Your task to perform on an android device: What is the capital of Germany? Image 0: 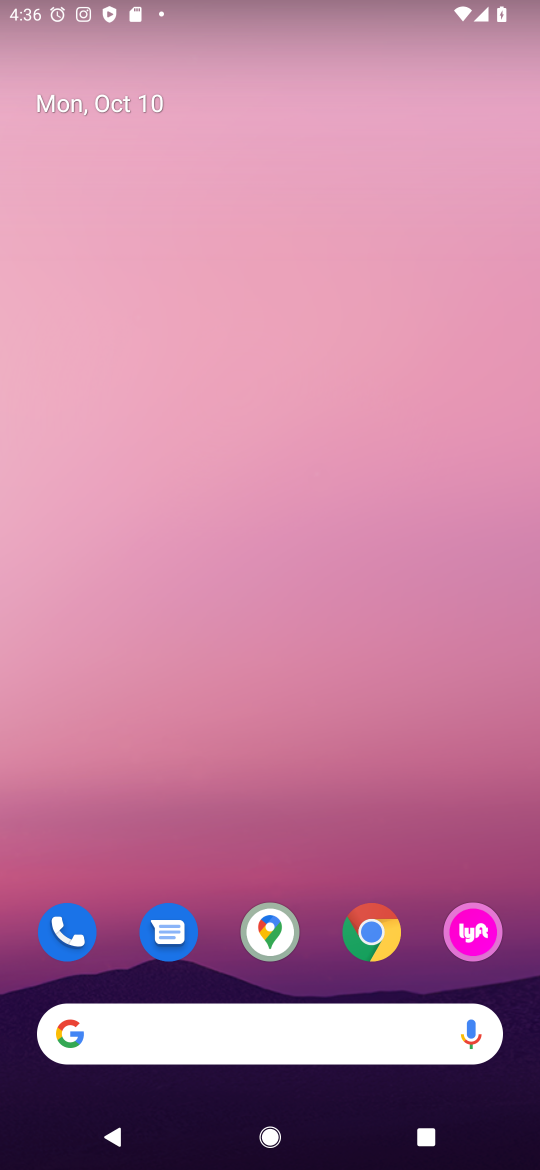
Step 0: press home button
Your task to perform on an android device: What is the capital of Germany? Image 1: 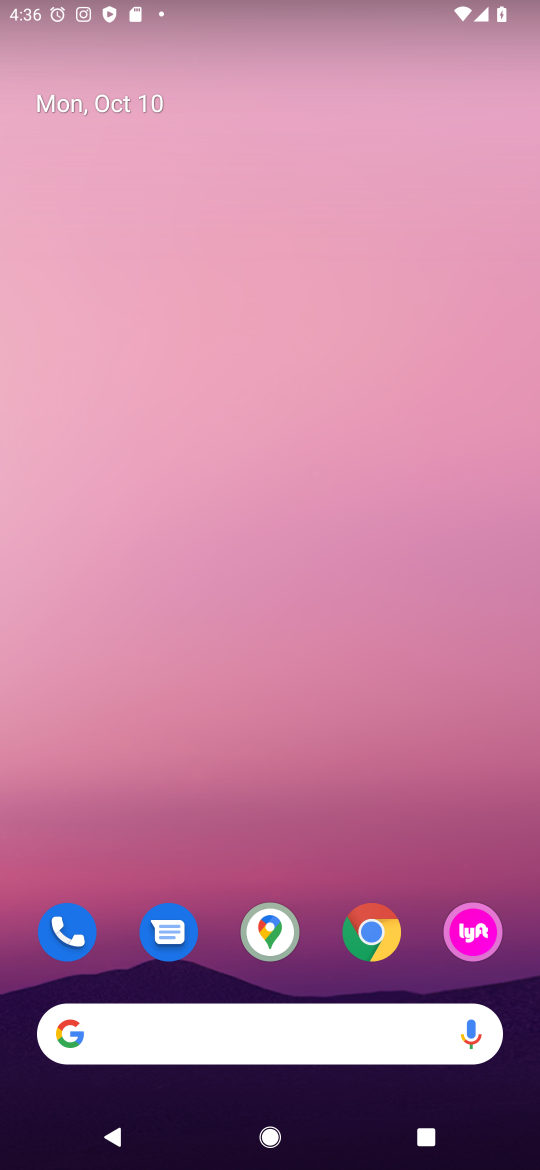
Step 1: click (296, 1030)
Your task to perform on an android device: What is the capital of Germany? Image 2: 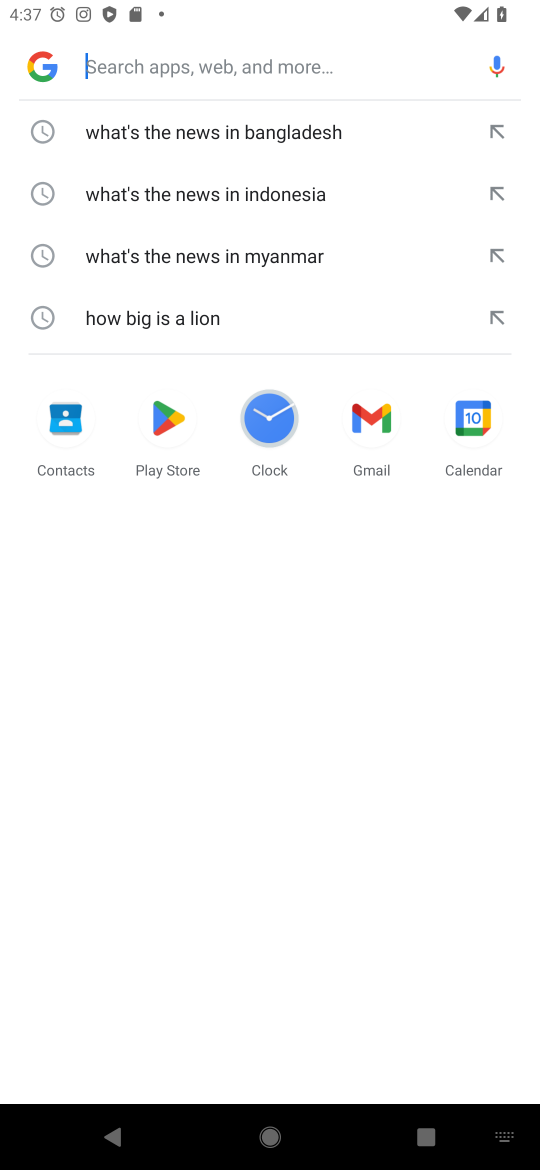
Step 2: type "What is the capital of Germany"
Your task to perform on an android device: What is the capital of Germany? Image 3: 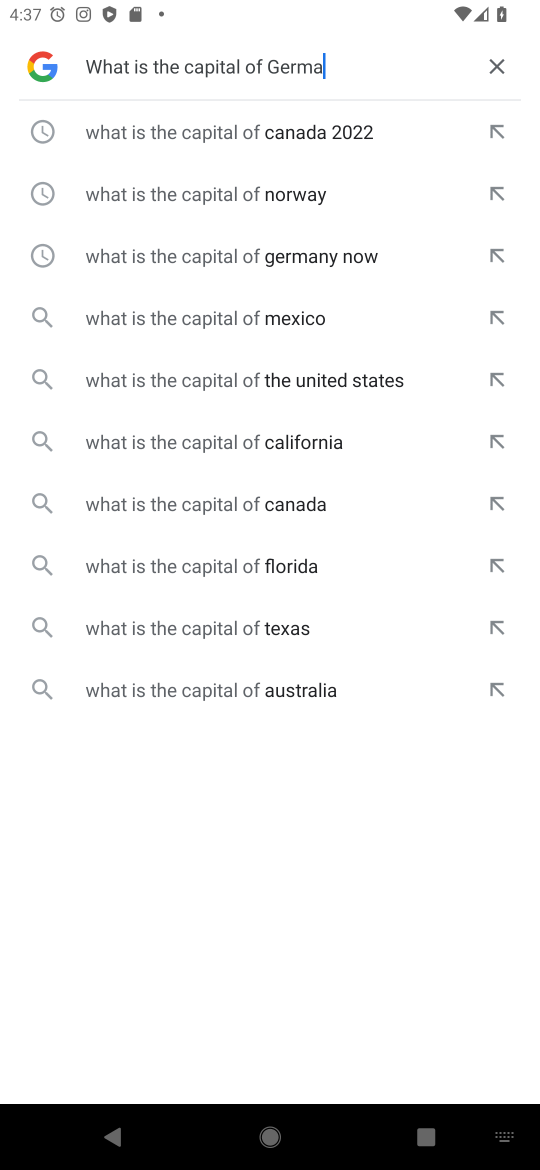
Step 3: press enter
Your task to perform on an android device: What is the capital of Germany? Image 4: 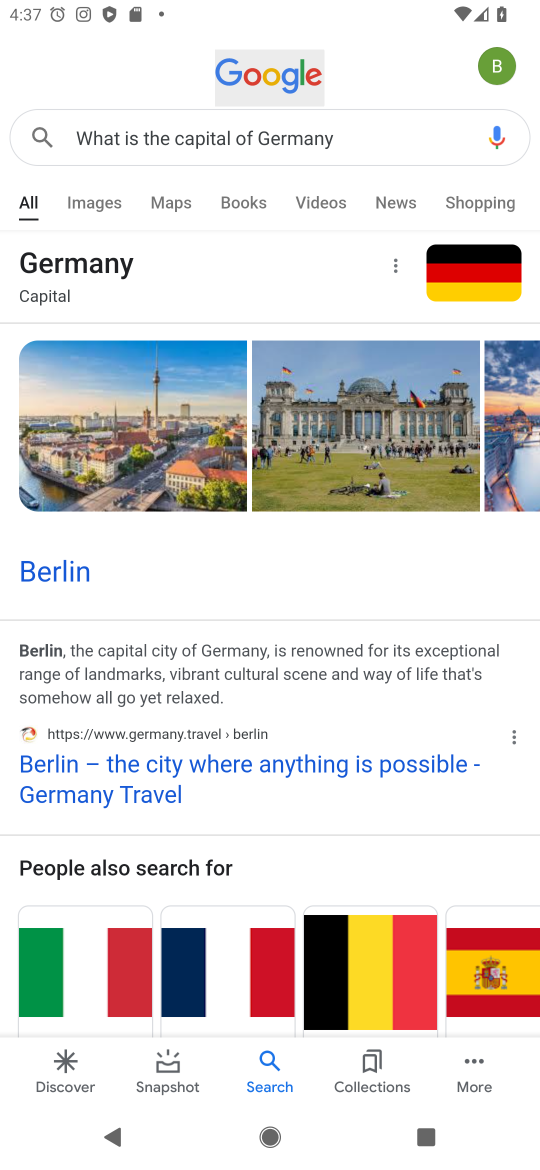
Step 4: task complete